Your task to perform on an android device: Search for vegetarian restaurants on Maps Image 0: 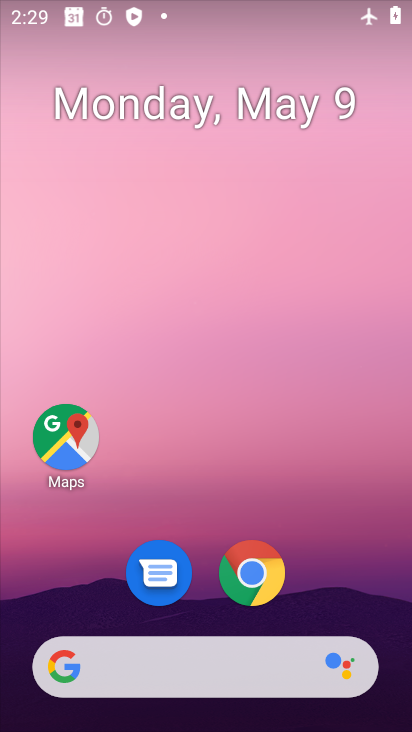
Step 0: click (203, 2)
Your task to perform on an android device: Search for vegetarian restaurants on Maps Image 1: 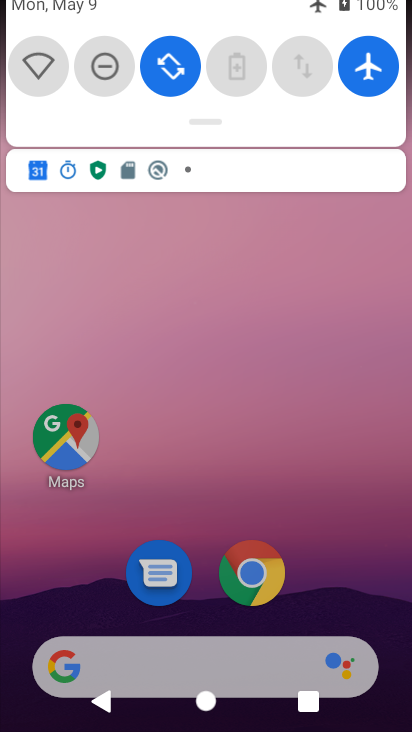
Step 1: click (71, 444)
Your task to perform on an android device: Search for vegetarian restaurants on Maps Image 2: 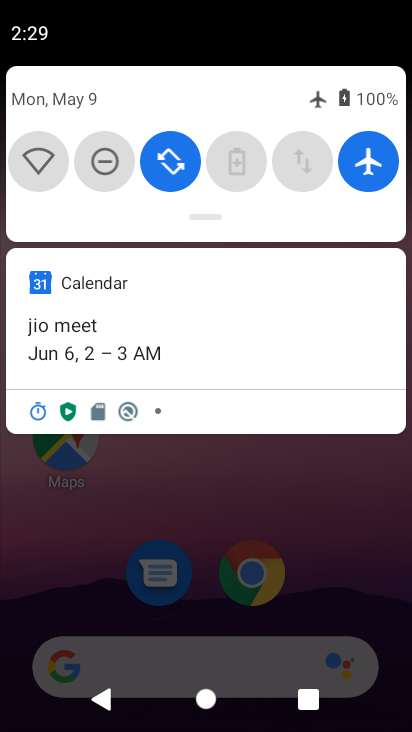
Step 2: click (65, 438)
Your task to perform on an android device: Search for vegetarian restaurants on Maps Image 3: 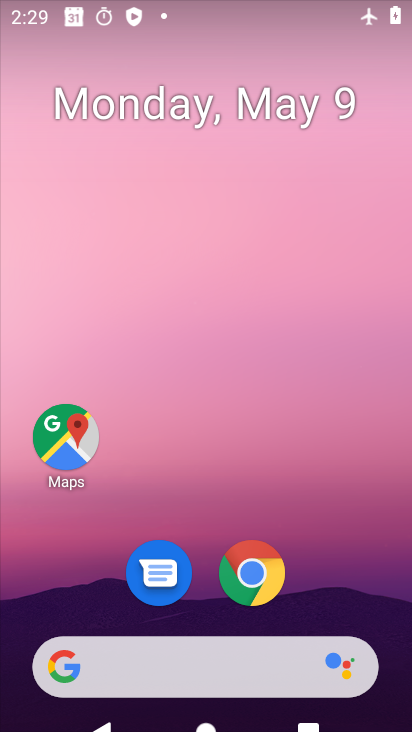
Step 3: click (70, 421)
Your task to perform on an android device: Search for vegetarian restaurants on Maps Image 4: 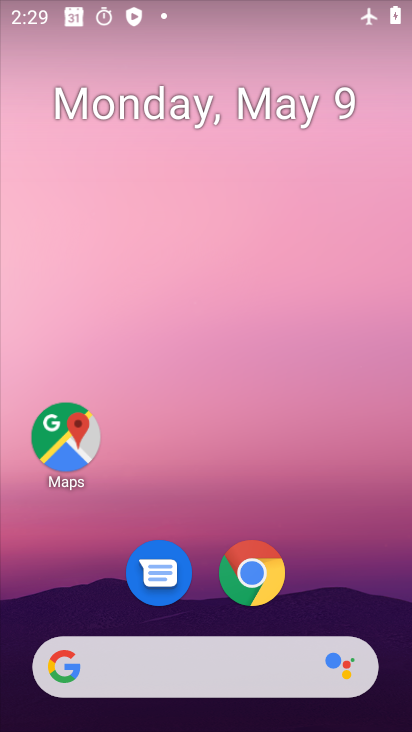
Step 4: click (71, 422)
Your task to perform on an android device: Search for vegetarian restaurants on Maps Image 5: 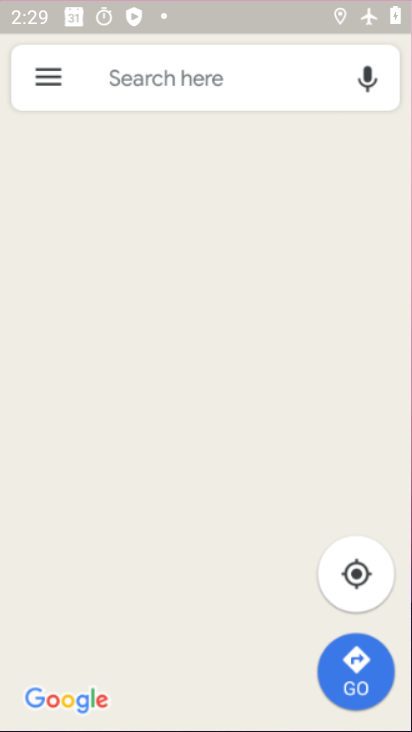
Step 5: click (72, 425)
Your task to perform on an android device: Search for vegetarian restaurants on Maps Image 6: 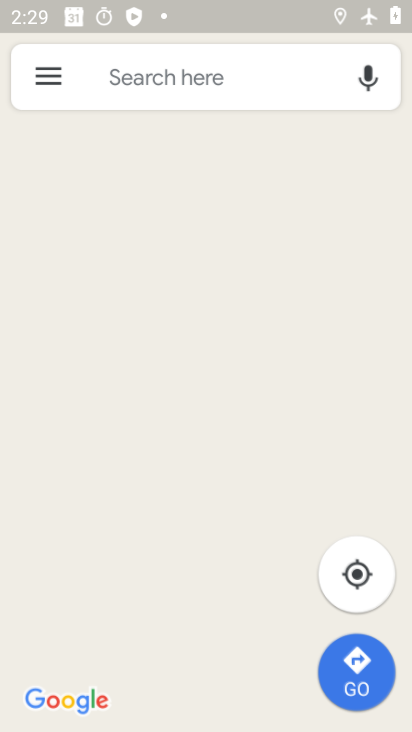
Step 6: click (73, 427)
Your task to perform on an android device: Search for vegetarian restaurants on Maps Image 7: 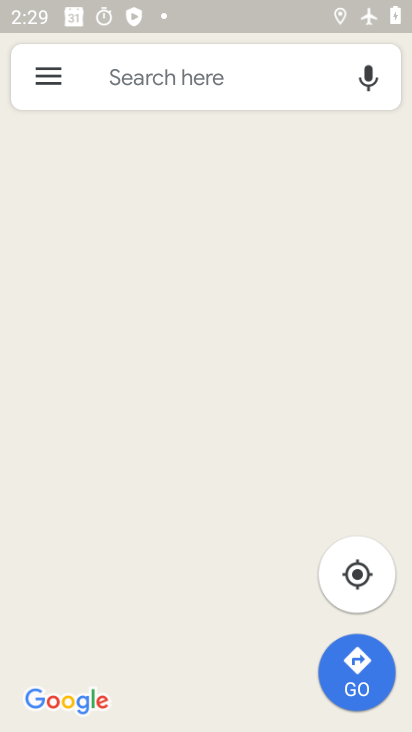
Step 7: click (112, 70)
Your task to perform on an android device: Search for vegetarian restaurants on Maps Image 8: 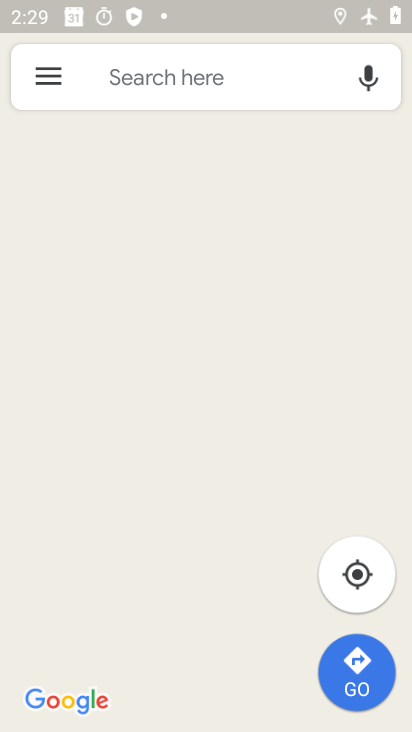
Step 8: click (111, 71)
Your task to perform on an android device: Search for vegetarian restaurants on Maps Image 9: 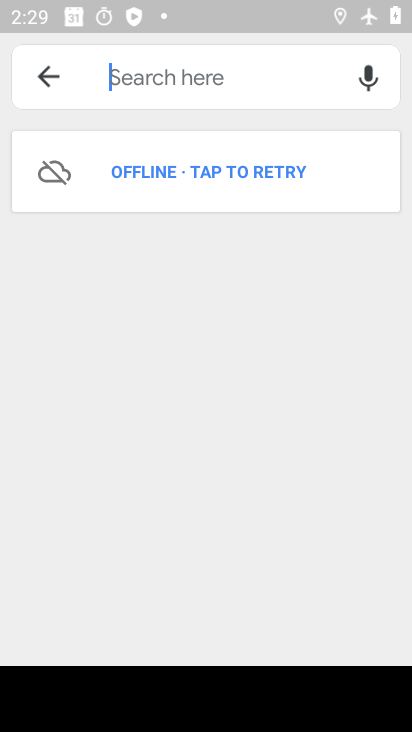
Step 9: click (136, 78)
Your task to perform on an android device: Search for vegetarian restaurants on Maps Image 10: 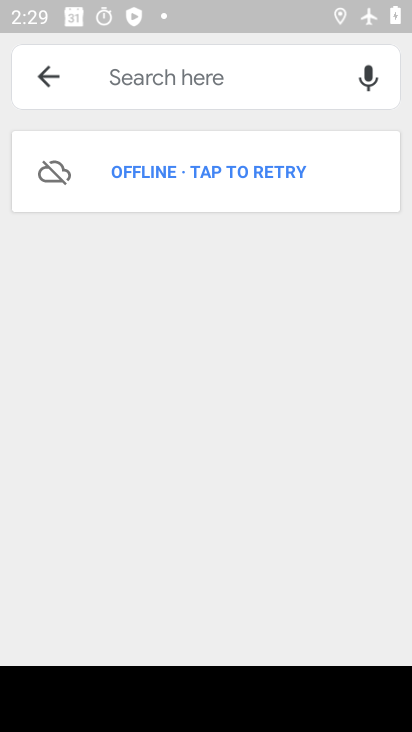
Step 10: click (123, 75)
Your task to perform on an android device: Search for vegetarian restaurants on Maps Image 11: 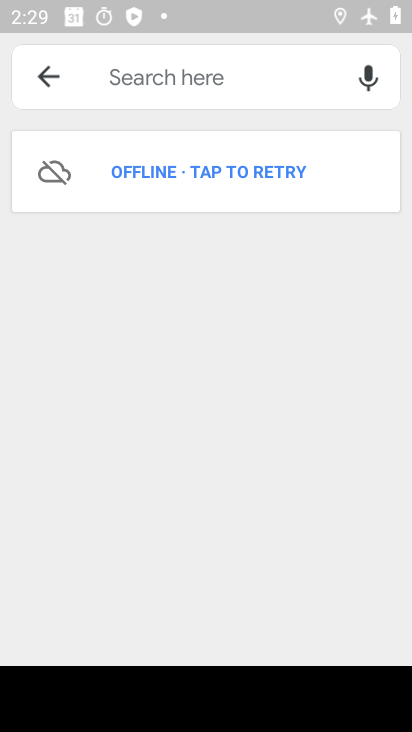
Step 11: type "vegetarian restaurants"
Your task to perform on an android device: Search for vegetarian restaurants on Maps Image 12: 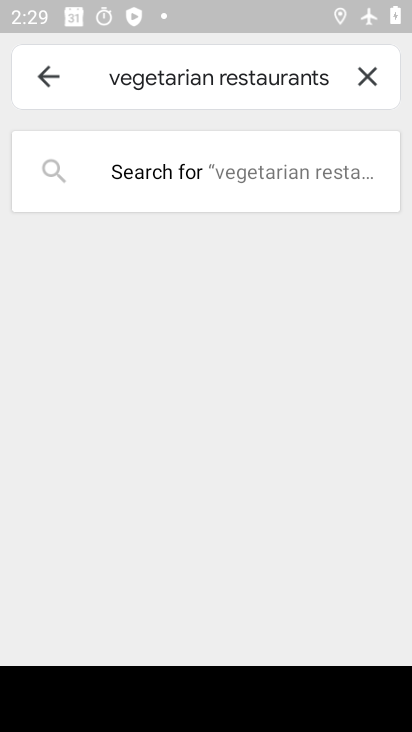
Step 12: click (260, 174)
Your task to perform on an android device: Search for vegetarian restaurants on Maps Image 13: 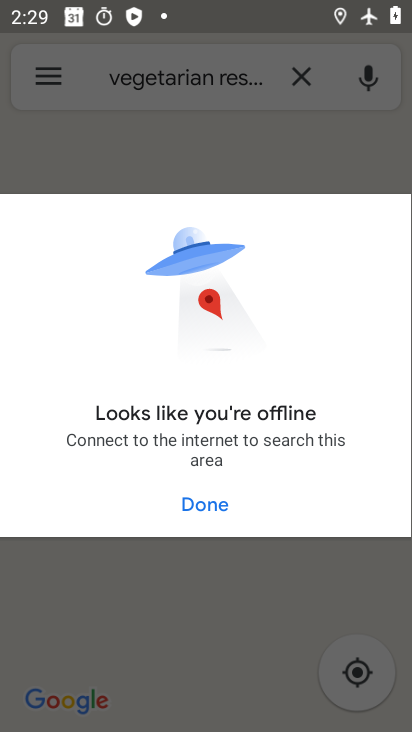
Step 13: task complete